Your task to perform on an android device: add a contact Image 0: 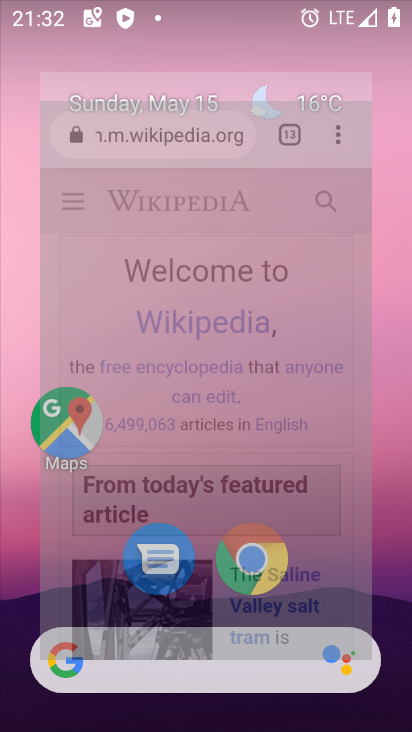
Step 0: drag from (23, 270) to (399, 292)
Your task to perform on an android device: add a contact Image 1: 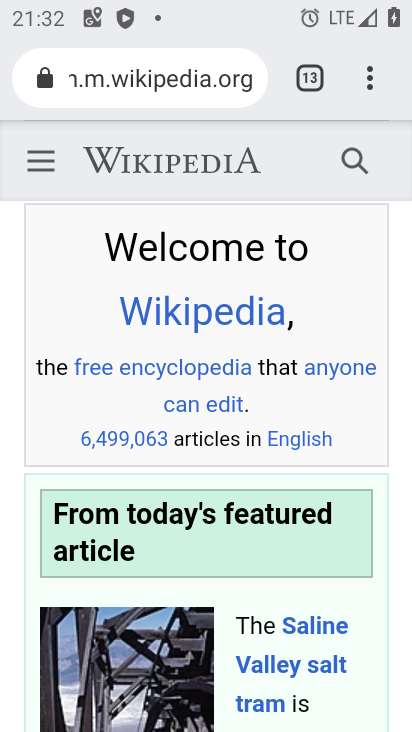
Step 1: press home button
Your task to perform on an android device: add a contact Image 2: 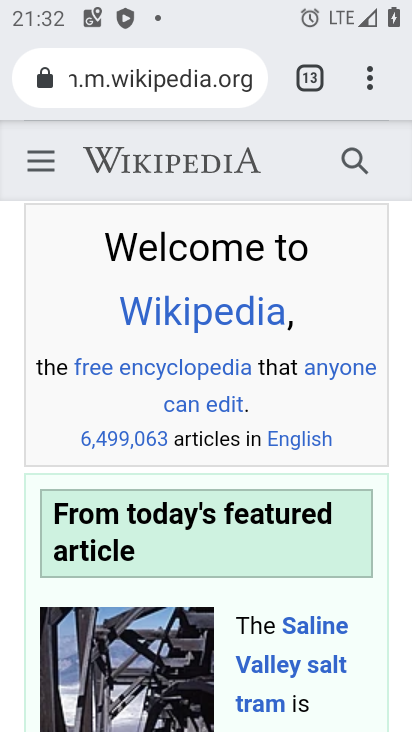
Step 2: drag from (399, 292) to (411, 524)
Your task to perform on an android device: add a contact Image 3: 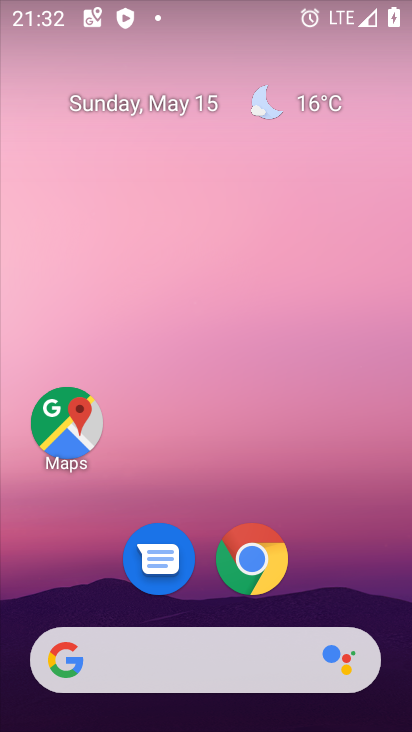
Step 3: drag from (183, 434) to (129, 14)
Your task to perform on an android device: add a contact Image 4: 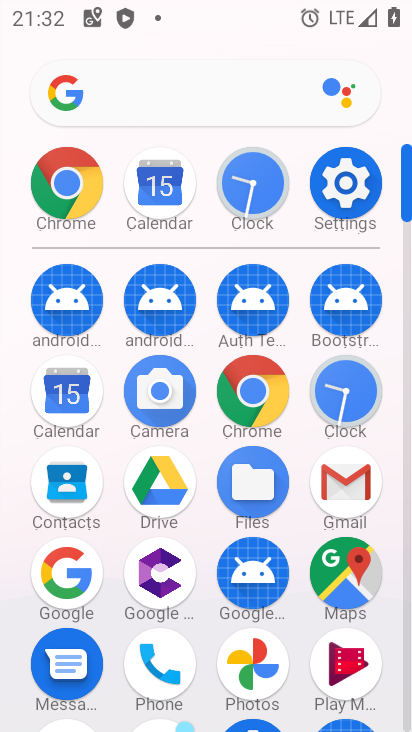
Step 4: click (58, 502)
Your task to perform on an android device: add a contact Image 5: 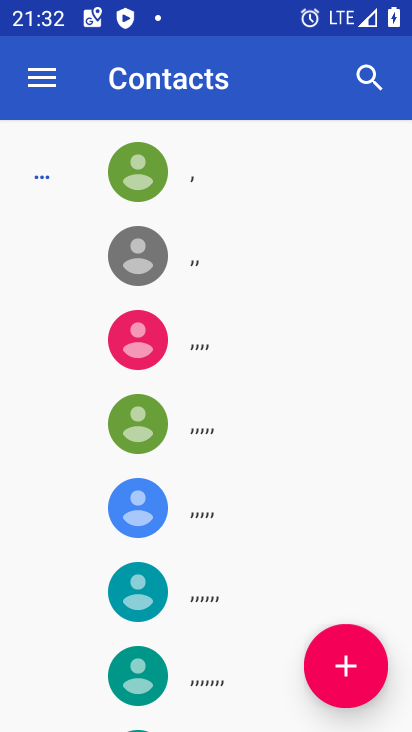
Step 5: click (335, 666)
Your task to perform on an android device: add a contact Image 6: 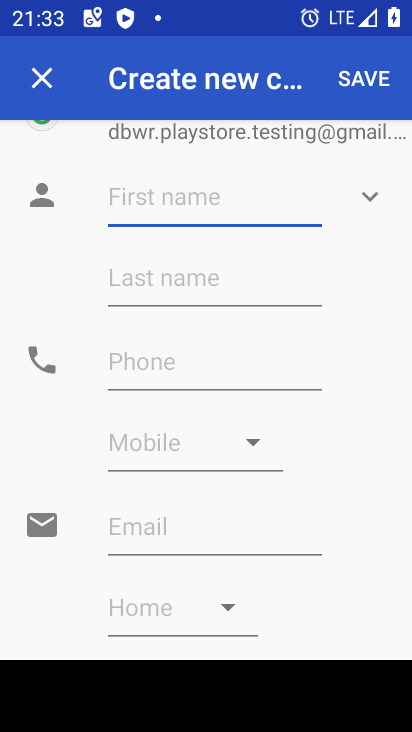
Step 6: type "gferttt"
Your task to perform on an android device: add a contact Image 7: 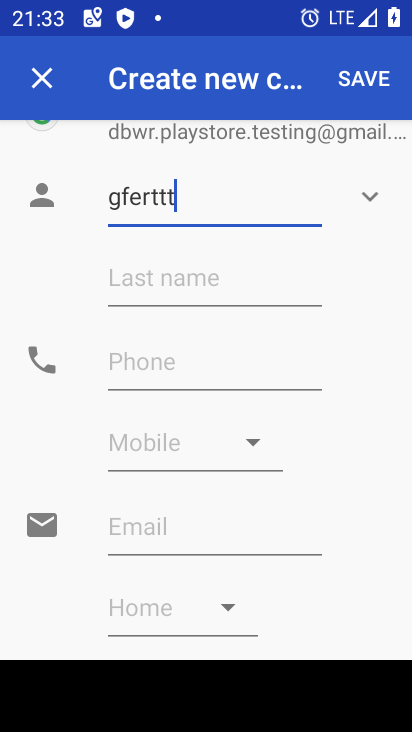
Step 7: click (196, 360)
Your task to perform on an android device: add a contact Image 8: 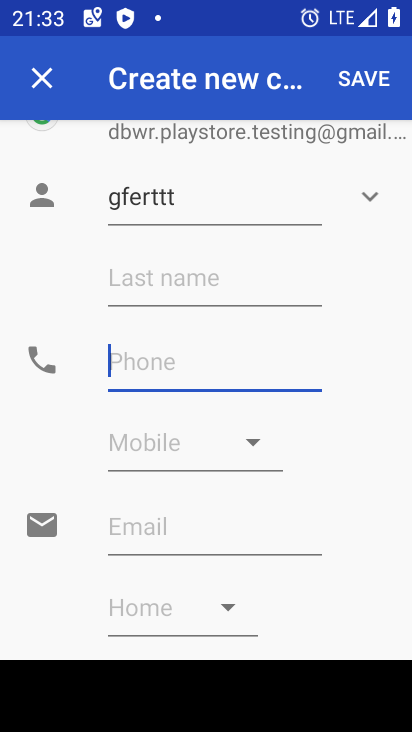
Step 8: type "444"
Your task to perform on an android device: add a contact Image 9: 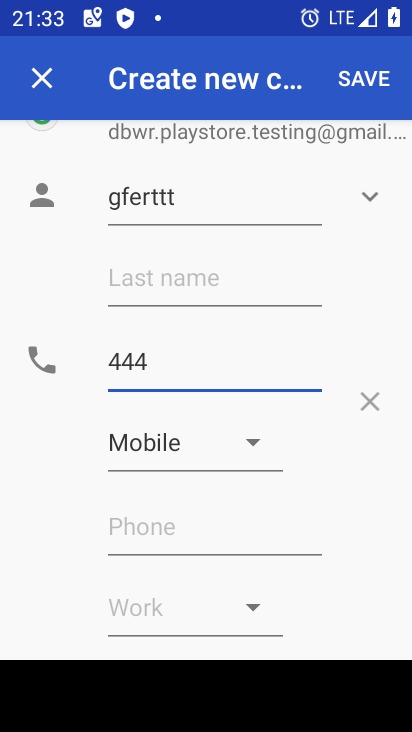
Step 9: click (364, 68)
Your task to perform on an android device: add a contact Image 10: 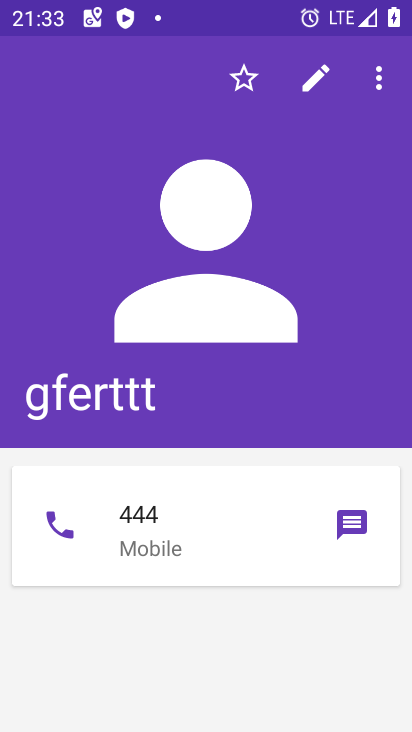
Step 10: task complete